Your task to perform on an android device: open app "YouTube Kids" (install if not already installed) Image 0: 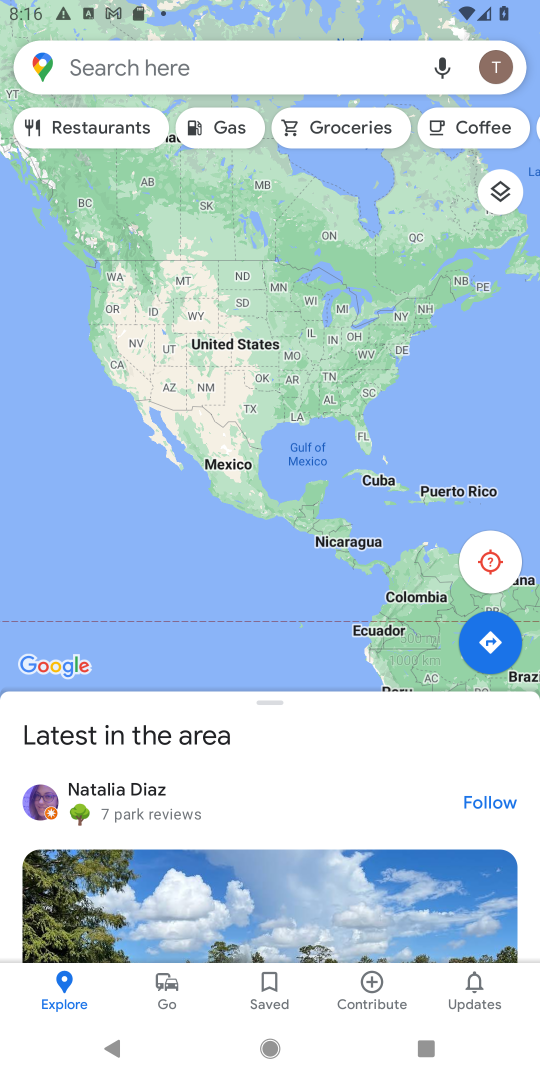
Step 0: press home button
Your task to perform on an android device: open app "YouTube Kids" (install if not already installed) Image 1: 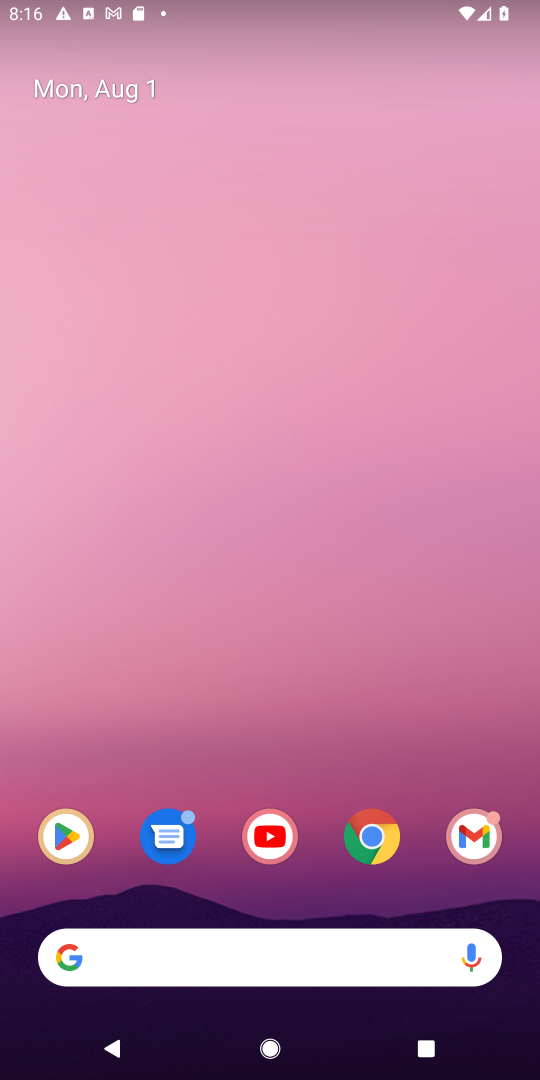
Step 1: click (68, 839)
Your task to perform on an android device: open app "YouTube Kids" (install if not already installed) Image 2: 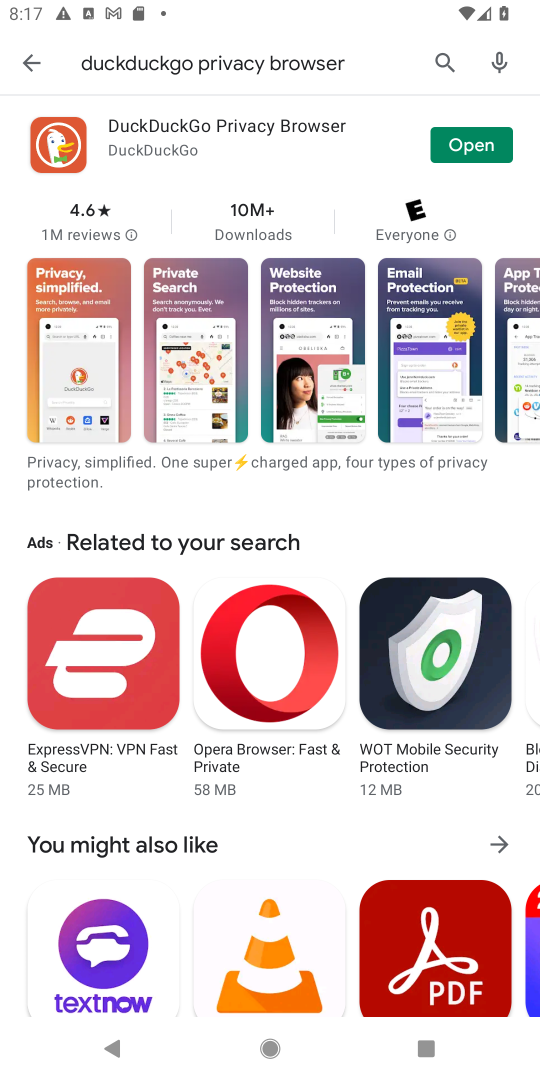
Step 2: click (446, 60)
Your task to perform on an android device: open app "YouTube Kids" (install if not already installed) Image 3: 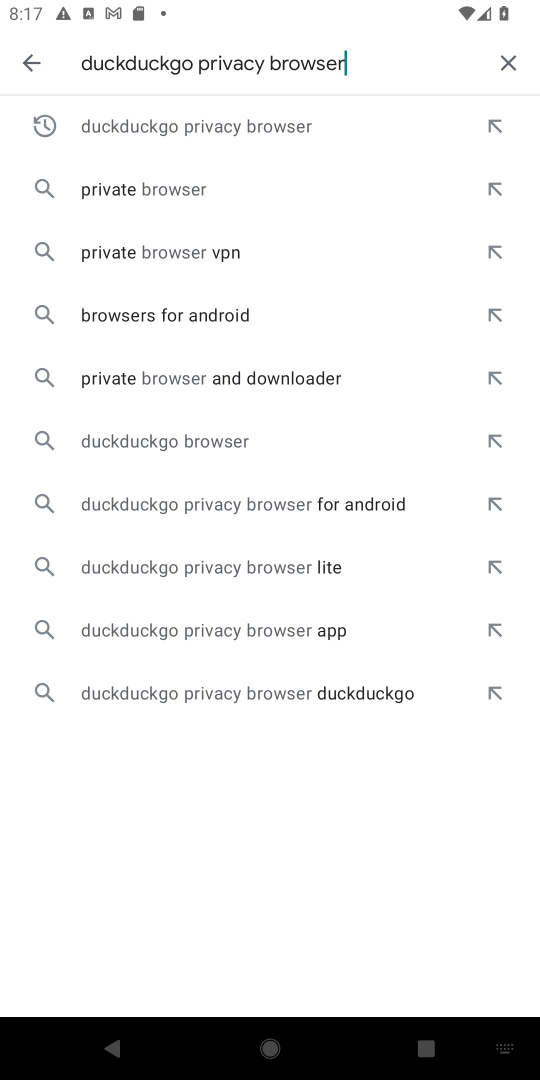
Step 3: click (504, 61)
Your task to perform on an android device: open app "YouTube Kids" (install if not already installed) Image 4: 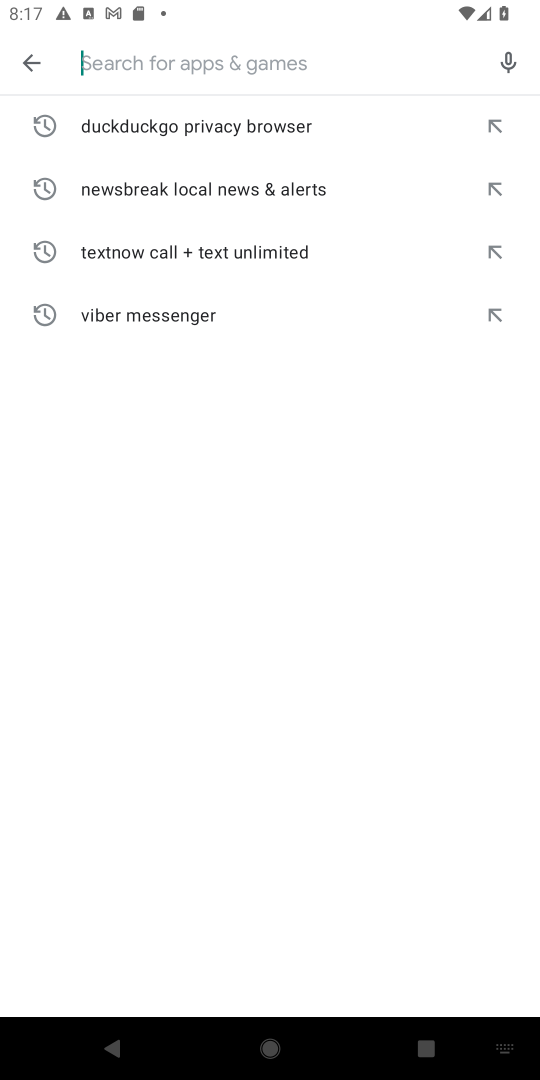
Step 4: type "YouTube Kids"
Your task to perform on an android device: open app "YouTube Kids" (install if not already installed) Image 5: 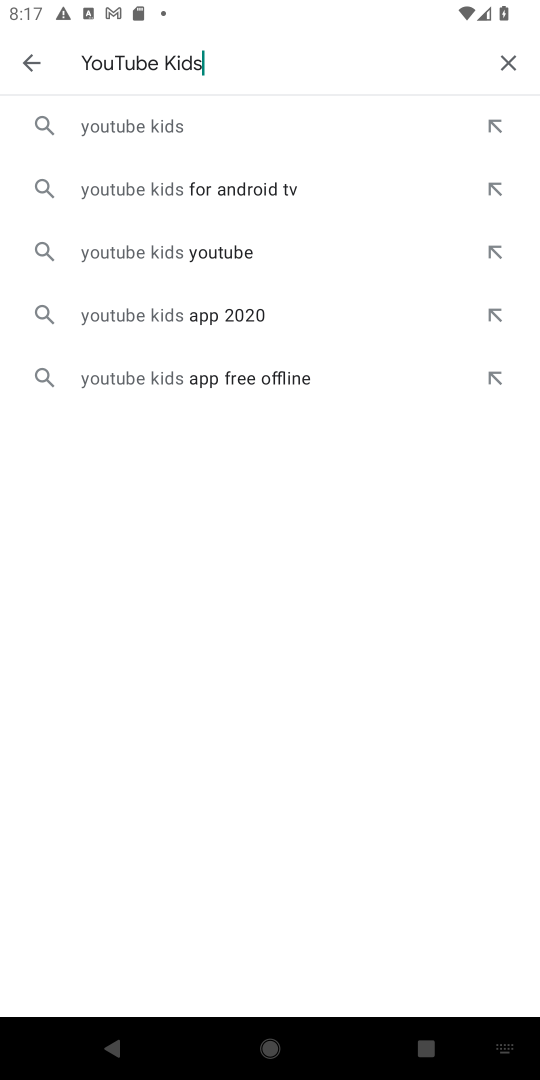
Step 5: click (176, 125)
Your task to perform on an android device: open app "YouTube Kids" (install if not already installed) Image 6: 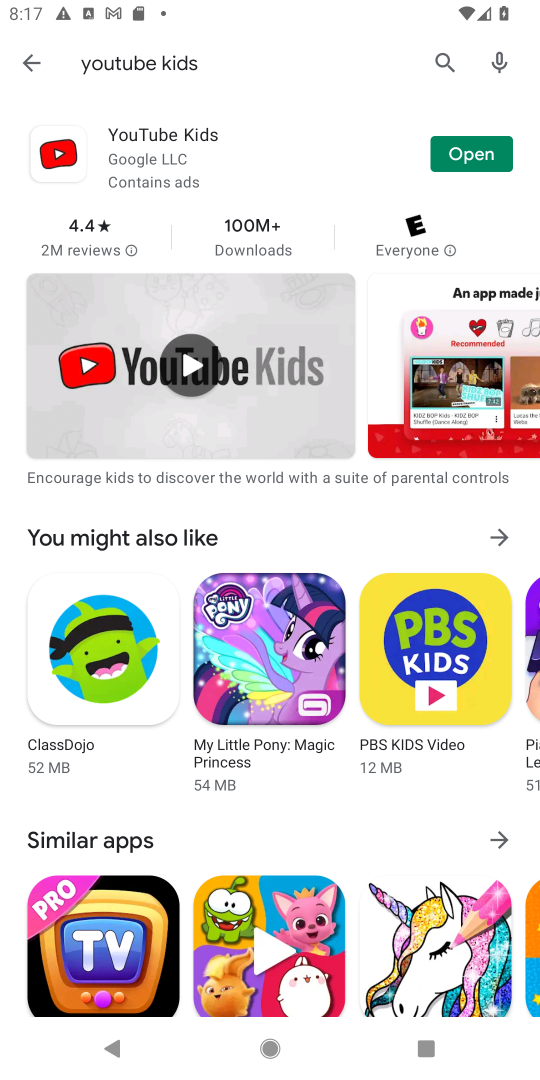
Step 6: click (470, 155)
Your task to perform on an android device: open app "YouTube Kids" (install if not already installed) Image 7: 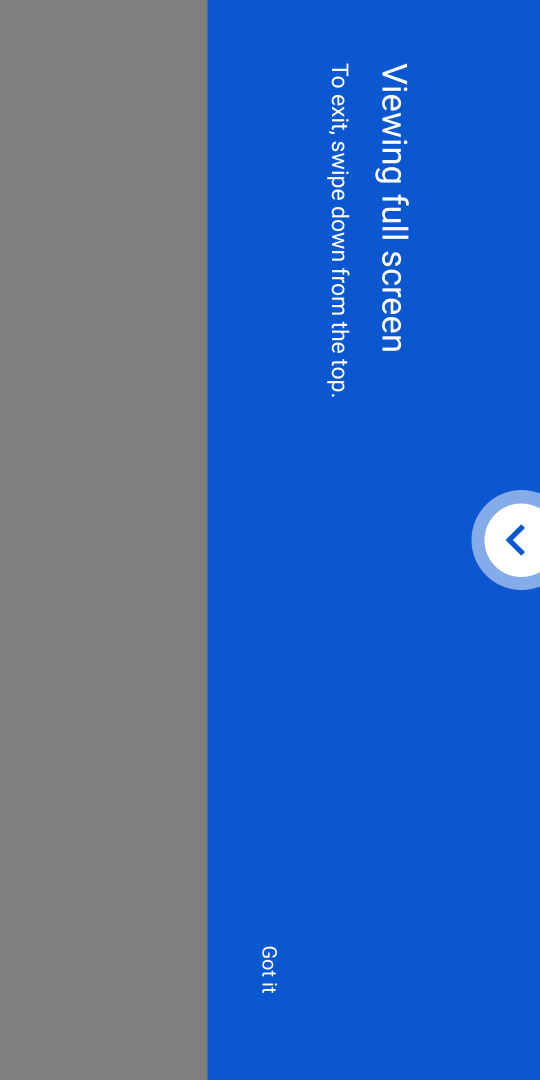
Step 7: task complete